Your task to perform on an android device: Open Google Chrome Image 0: 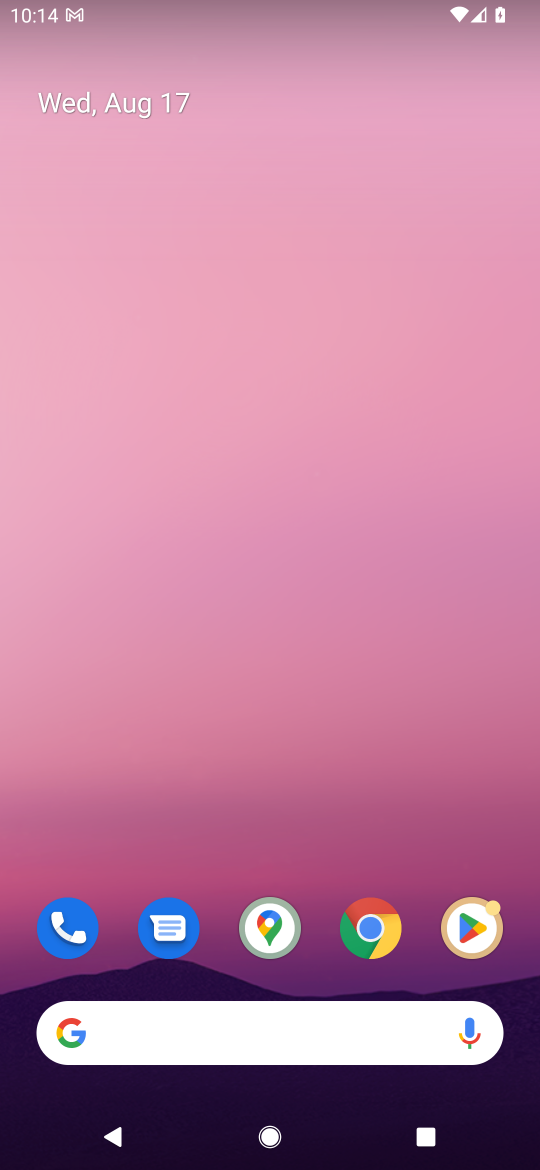
Step 0: click (363, 940)
Your task to perform on an android device: Open Google Chrome Image 1: 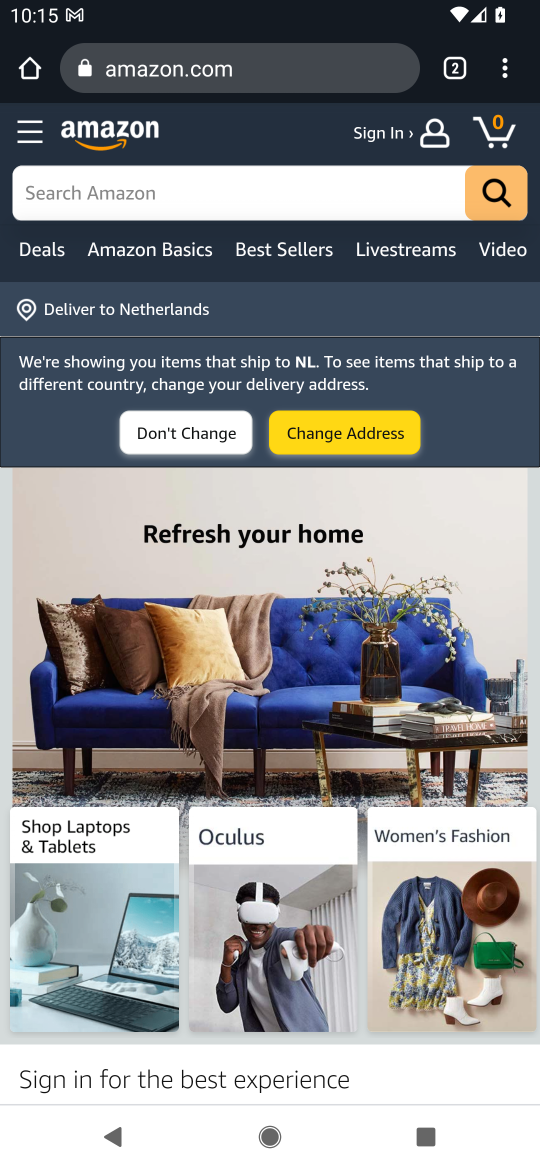
Step 1: task complete